Your task to perform on an android device: toggle show notifications on the lock screen Image 0: 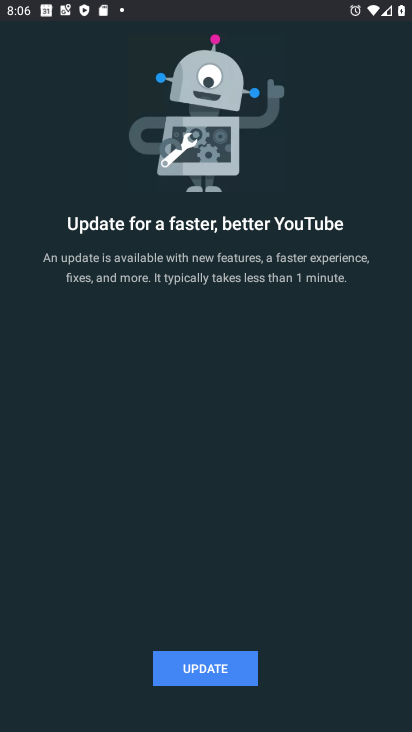
Step 0: press home button
Your task to perform on an android device: toggle show notifications on the lock screen Image 1: 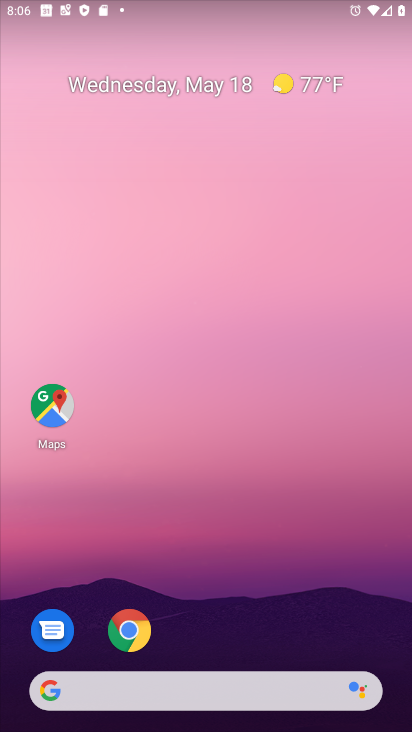
Step 1: drag from (280, 535) to (320, 201)
Your task to perform on an android device: toggle show notifications on the lock screen Image 2: 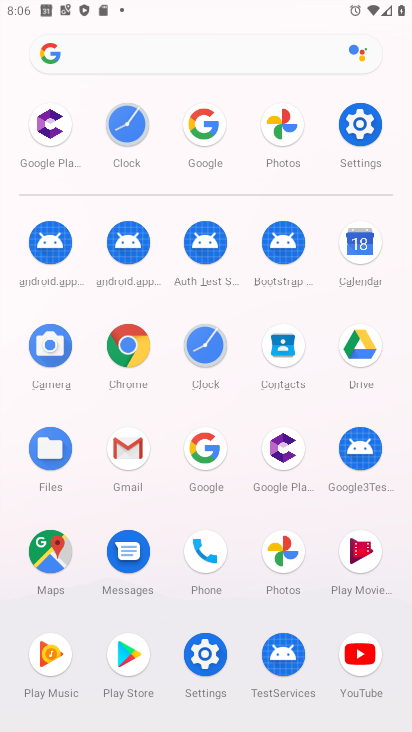
Step 2: click (363, 137)
Your task to perform on an android device: toggle show notifications on the lock screen Image 3: 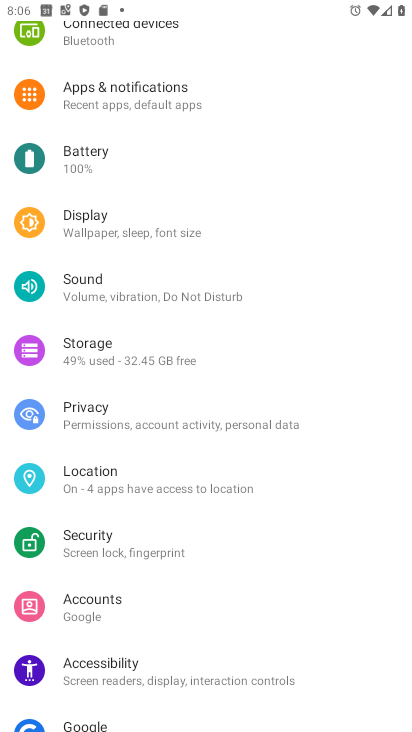
Step 3: click (157, 91)
Your task to perform on an android device: toggle show notifications on the lock screen Image 4: 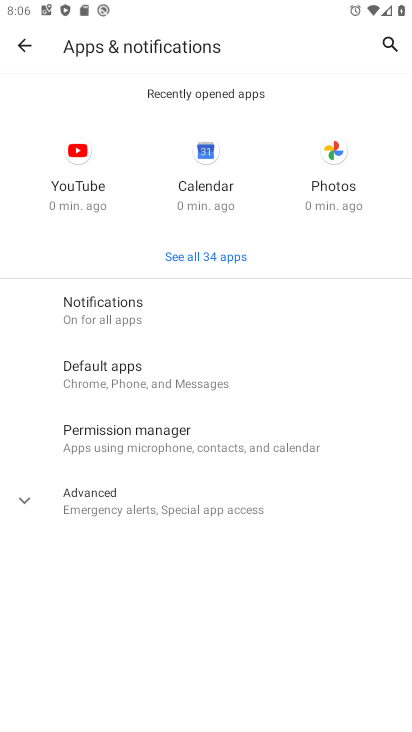
Step 4: click (135, 321)
Your task to perform on an android device: toggle show notifications on the lock screen Image 5: 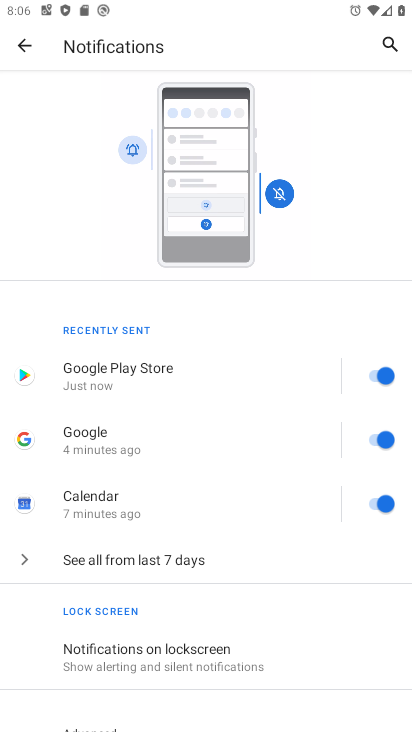
Step 5: click (191, 667)
Your task to perform on an android device: toggle show notifications on the lock screen Image 6: 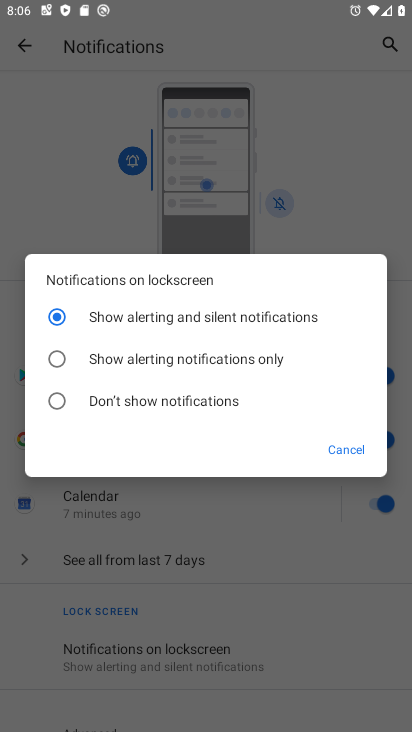
Step 6: click (172, 363)
Your task to perform on an android device: toggle show notifications on the lock screen Image 7: 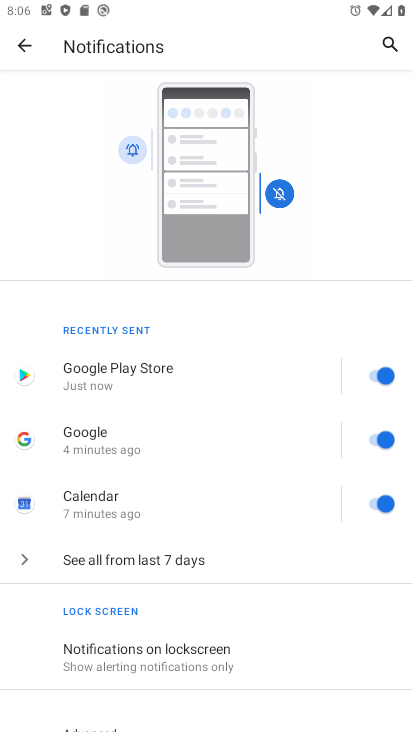
Step 7: task complete